Your task to perform on an android device: empty trash in the gmail app Image 0: 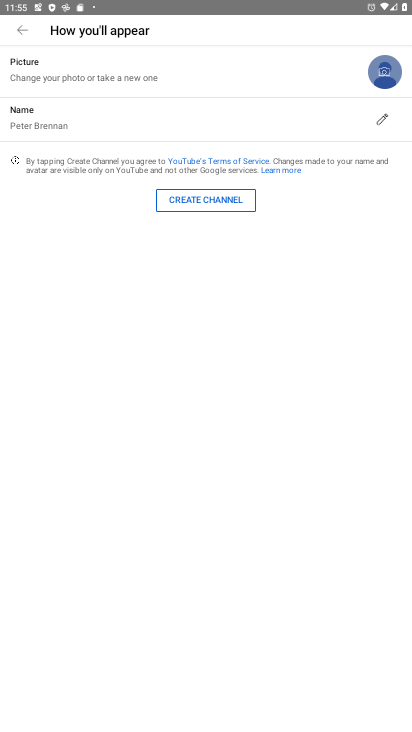
Step 0: press home button
Your task to perform on an android device: empty trash in the gmail app Image 1: 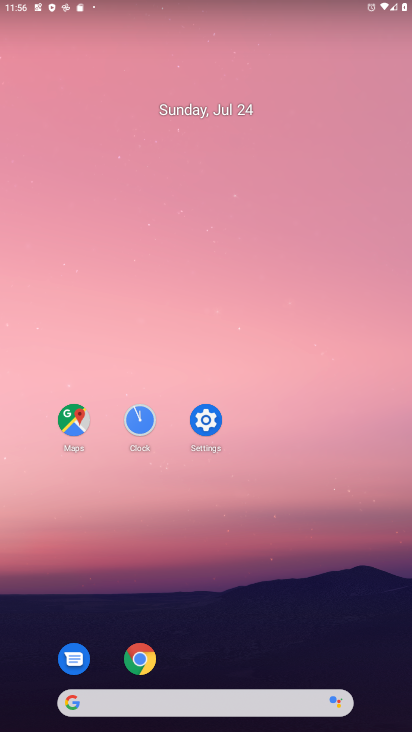
Step 1: drag from (377, 672) to (275, 58)
Your task to perform on an android device: empty trash in the gmail app Image 2: 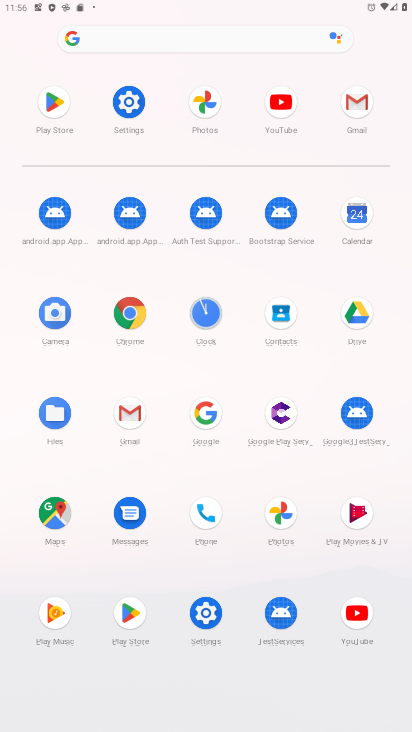
Step 2: click (128, 417)
Your task to perform on an android device: empty trash in the gmail app Image 3: 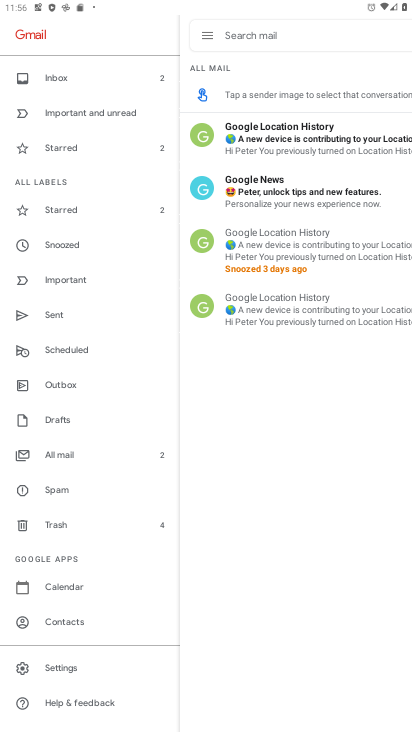
Step 3: click (49, 524)
Your task to perform on an android device: empty trash in the gmail app Image 4: 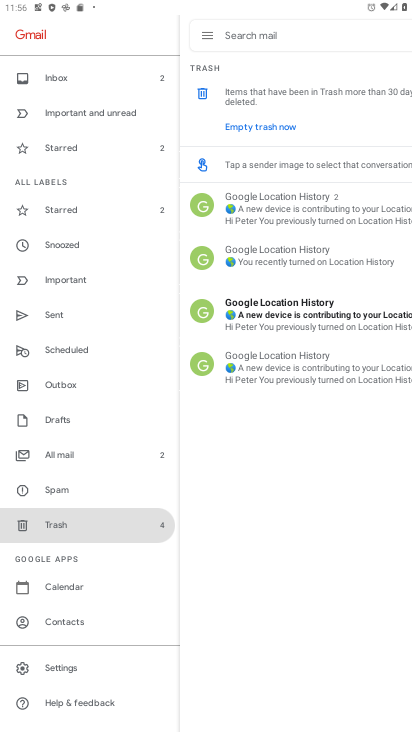
Step 4: click (64, 526)
Your task to perform on an android device: empty trash in the gmail app Image 5: 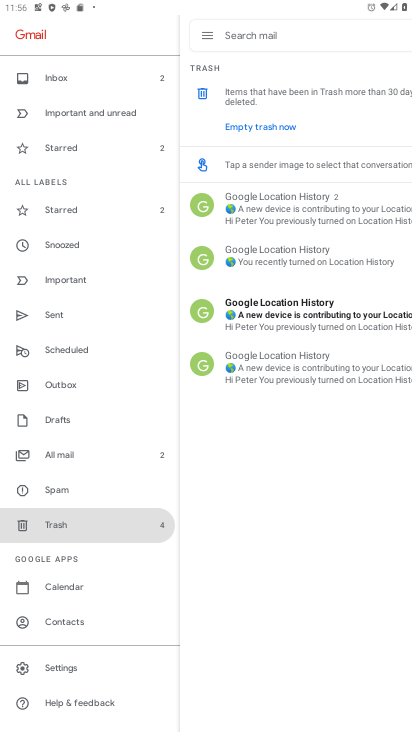
Step 5: click (202, 93)
Your task to perform on an android device: empty trash in the gmail app Image 6: 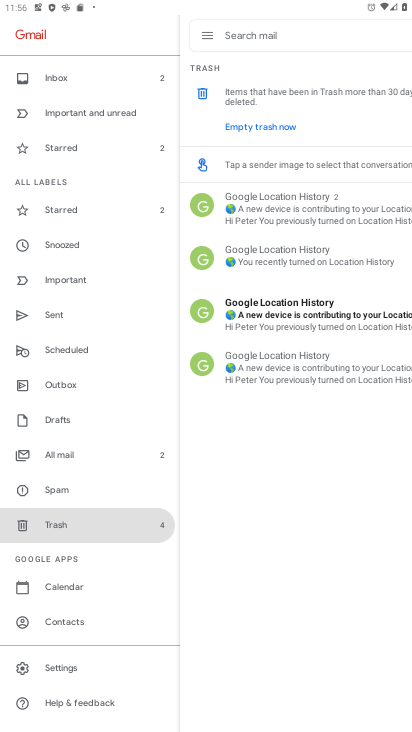
Step 6: click (261, 123)
Your task to perform on an android device: empty trash in the gmail app Image 7: 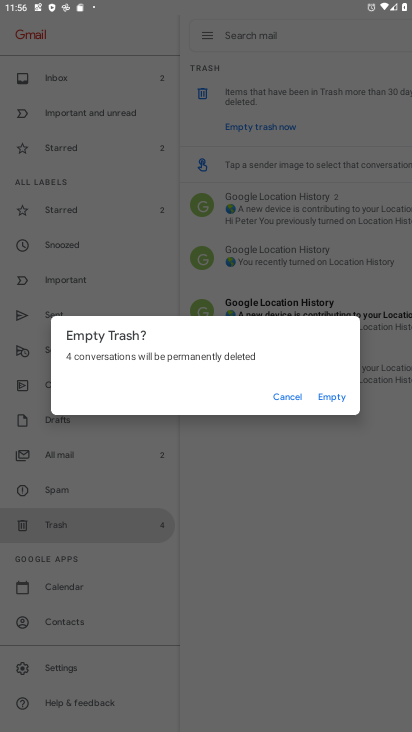
Step 7: click (340, 394)
Your task to perform on an android device: empty trash in the gmail app Image 8: 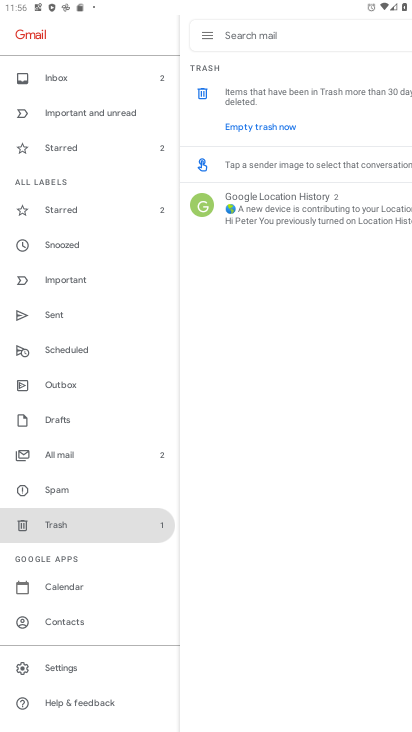
Step 8: task complete